Your task to perform on an android device: change keyboard looks Image 0: 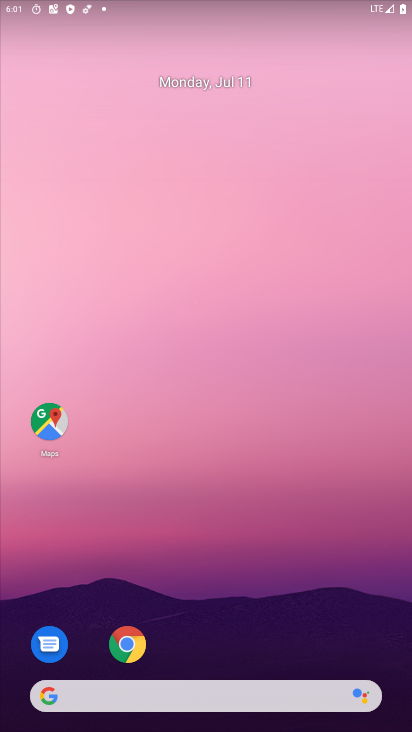
Step 0: drag from (271, 703) to (300, 44)
Your task to perform on an android device: change keyboard looks Image 1: 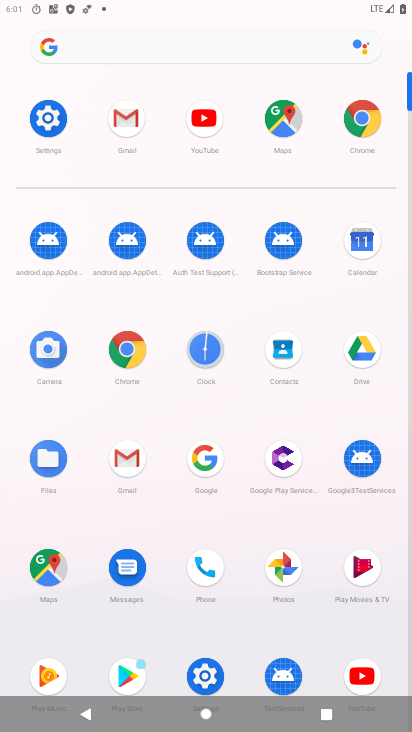
Step 1: click (58, 118)
Your task to perform on an android device: change keyboard looks Image 2: 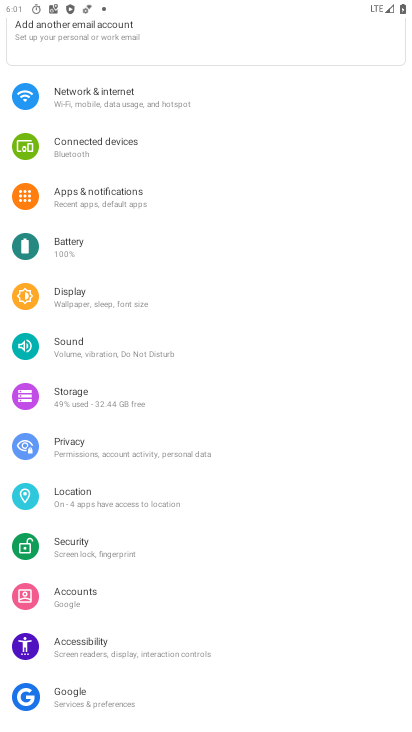
Step 2: drag from (382, 657) to (280, 123)
Your task to perform on an android device: change keyboard looks Image 3: 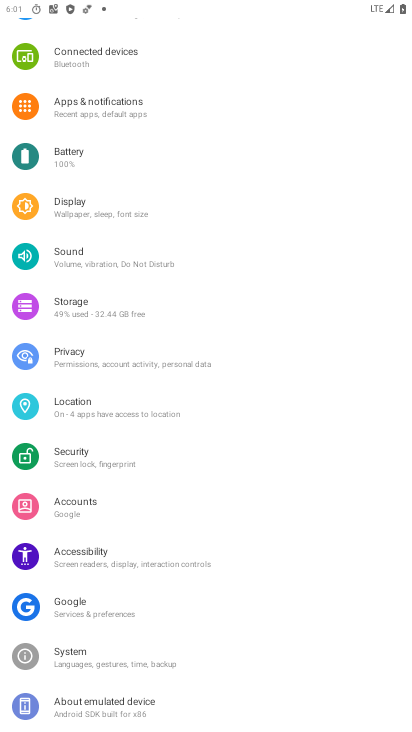
Step 3: click (129, 657)
Your task to perform on an android device: change keyboard looks Image 4: 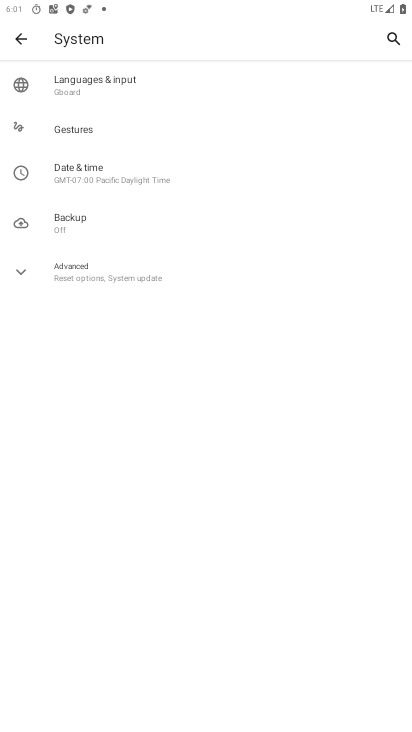
Step 4: click (116, 88)
Your task to perform on an android device: change keyboard looks Image 5: 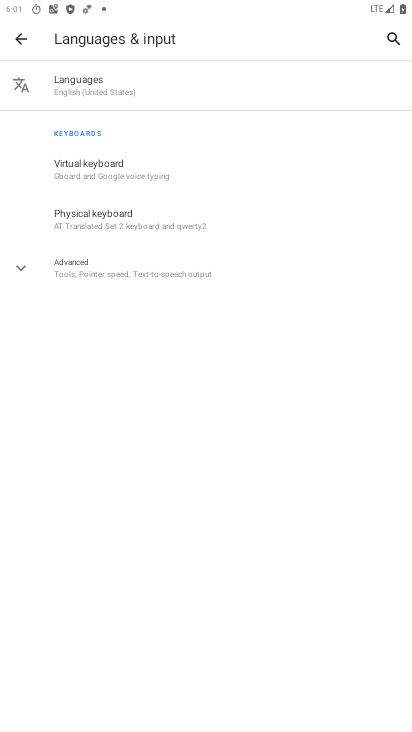
Step 5: click (130, 177)
Your task to perform on an android device: change keyboard looks Image 6: 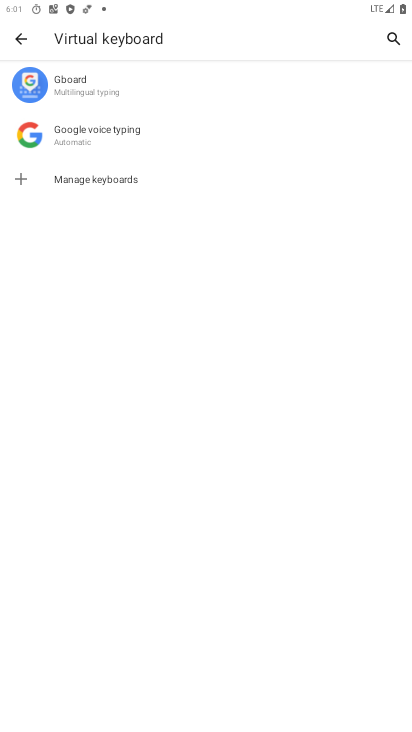
Step 6: click (120, 91)
Your task to perform on an android device: change keyboard looks Image 7: 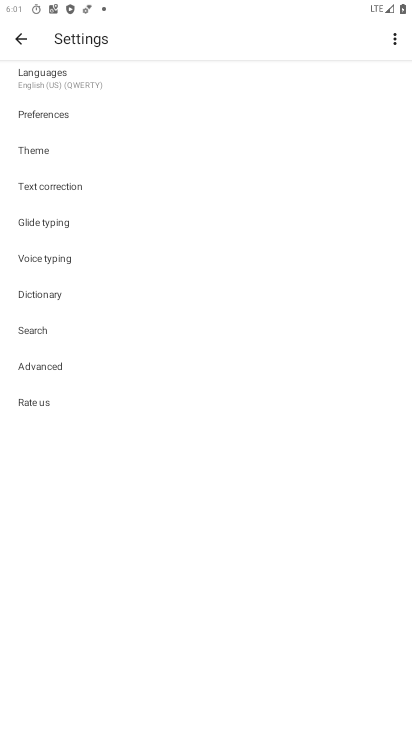
Step 7: click (53, 155)
Your task to perform on an android device: change keyboard looks Image 8: 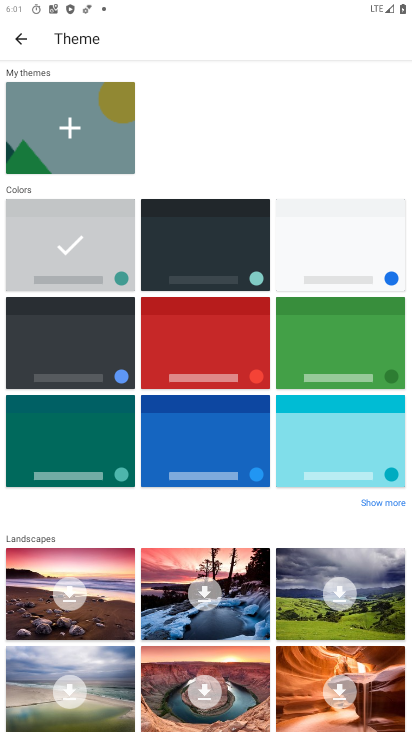
Step 8: click (225, 335)
Your task to perform on an android device: change keyboard looks Image 9: 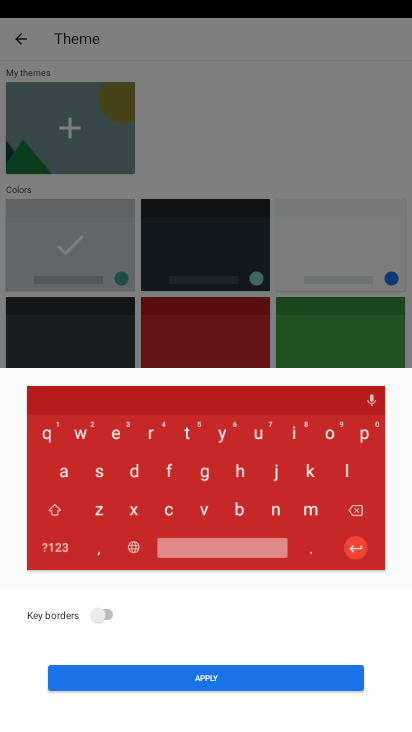
Step 9: click (294, 679)
Your task to perform on an android device: change keyboard looks Image 10: 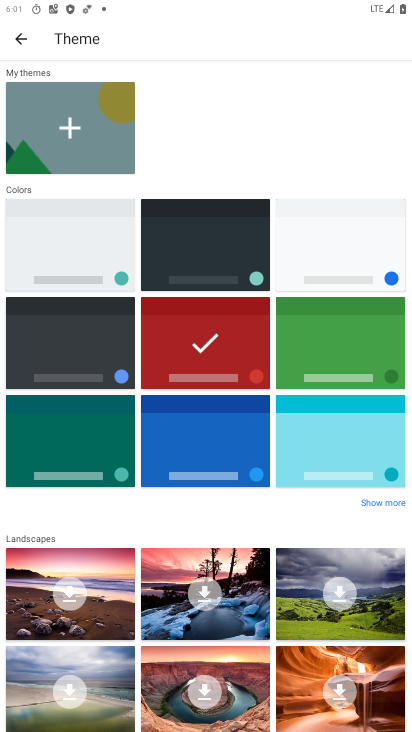
Step 10: task complete